Your task to perform on an android device: Search for Mexican restaurants on Maps Image 0: 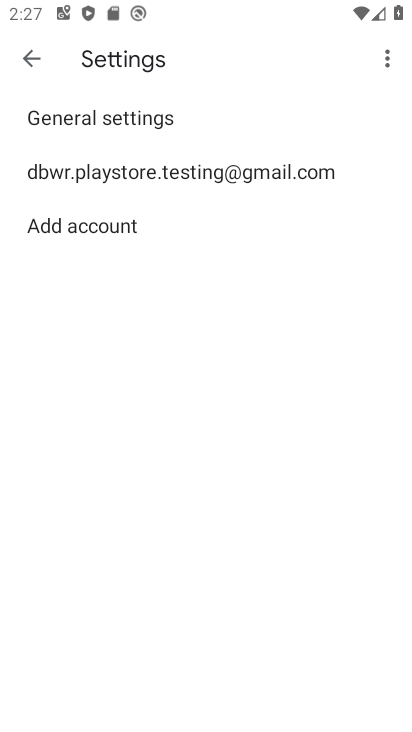
Step 0: press back button
Your task to perform on an android device: Search for Mexican restaurants on Maps Image 1: 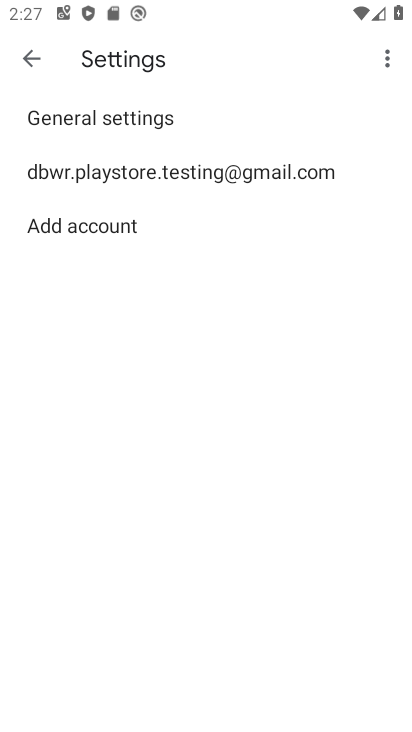
Step 1: press back button
Your task to perform on an android device: Search for Mexican restaurants on Maps Image 2: 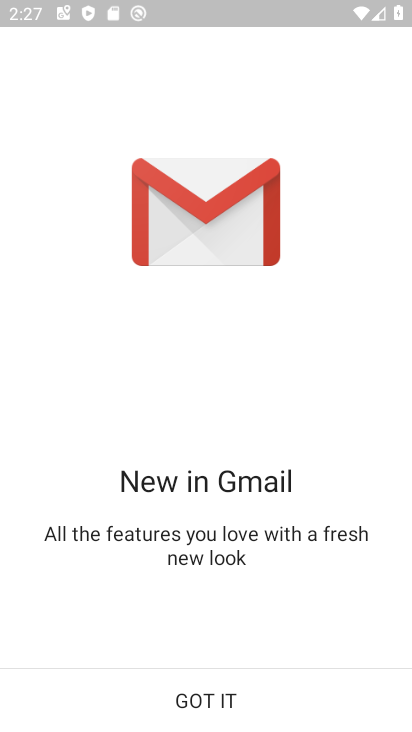
Step 2: click (184, 704)
Your task to perform on an android device: Search for Mexican restaurants on Maps Image 3: 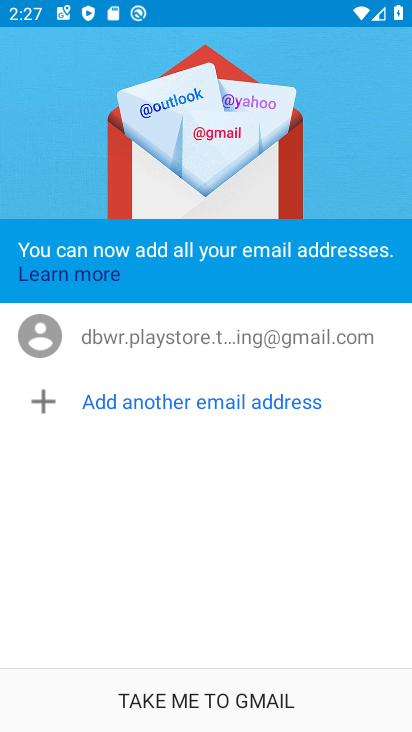
Step 3: press back button
Your task to perform on an android device: Search for Mexican restaurants on Maps Image 4: 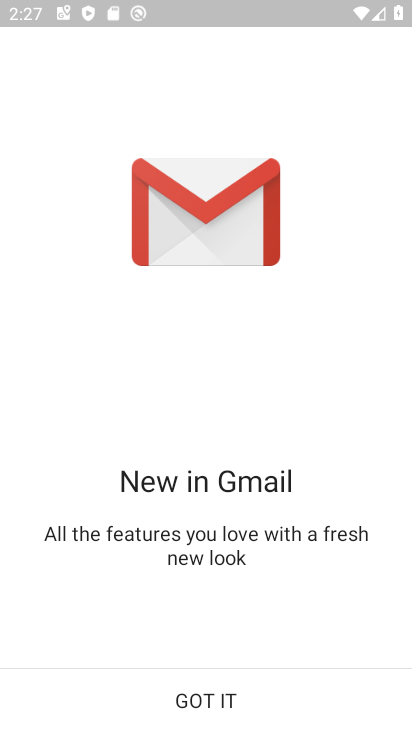
Step 4: press home button
Your task to perform on an android device: Search for Mexican restaurants on Maps Image 5: 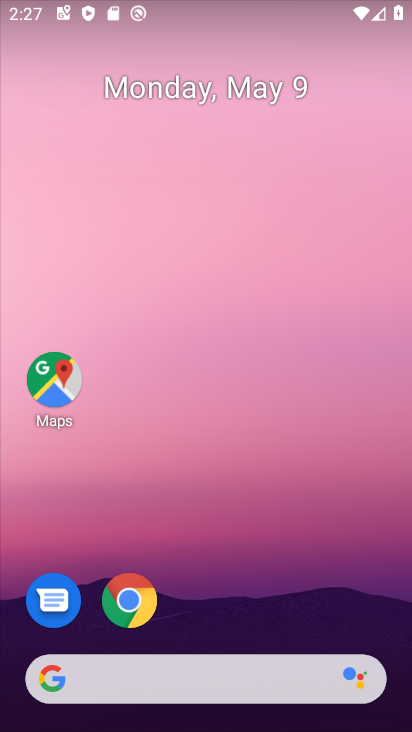
Step 5: click (52, 376)
Your task to perform on an android device: Search for Mexican restaurants on Maps Image 6: 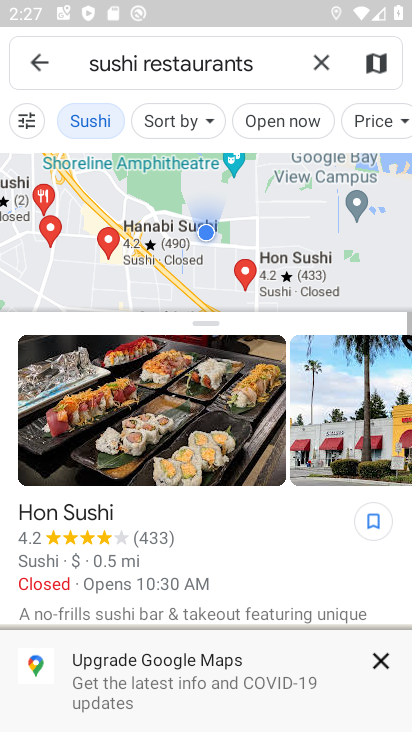
Step 6: click (323, 59)
Your task to perform on an android device: Search for Mexican restaurants on Maps Image 7: 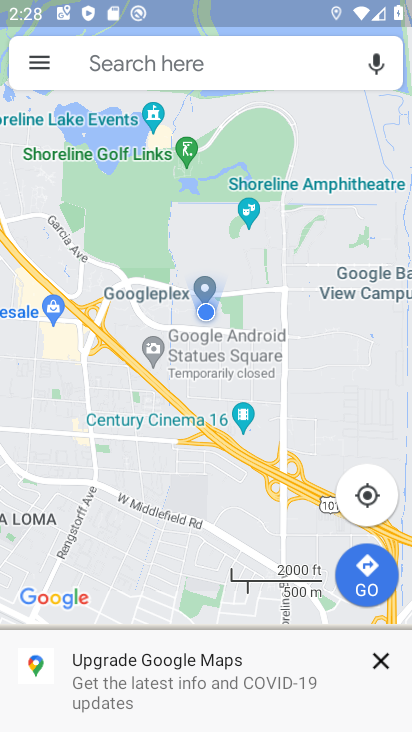
Step 7: click (196, 60)
Your task to perform on an android device: Search for Mexican restaurants on Maps Image 8: 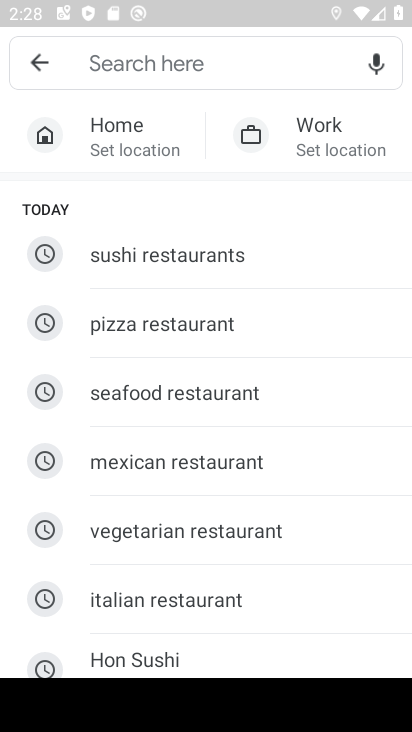
Step 8: type "mexican"
Your task to perform on an android device: Search for Mexican restaurants on Maps Image 9: 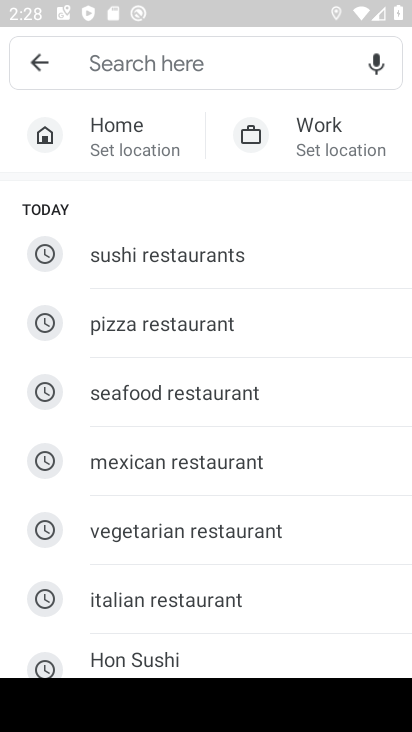
Step 9: click (253, 460)
Your task to perform on an android device: Search for Mexican restaurants on Maps Image 10: 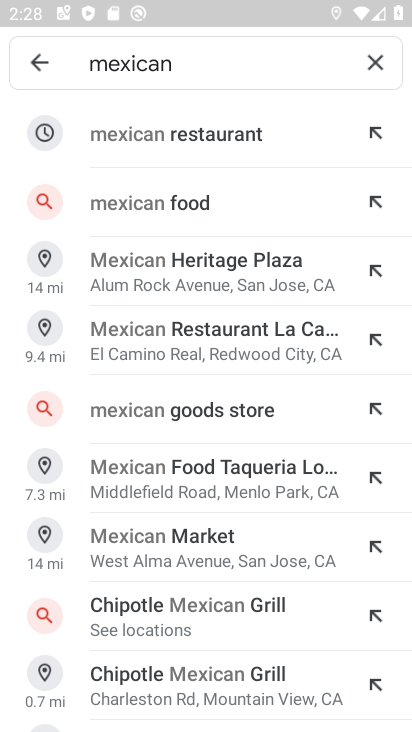
Step 10: click (192, 132)
Your task to perform on an android device: Search for Mexican restaurants on Maps Image 11: 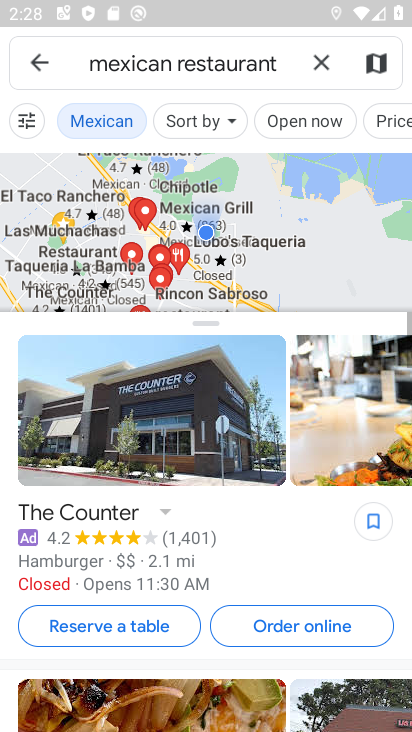
Step 11: task complete